Your task to perform on an android device: delete a single message in the gmail app Image 0: 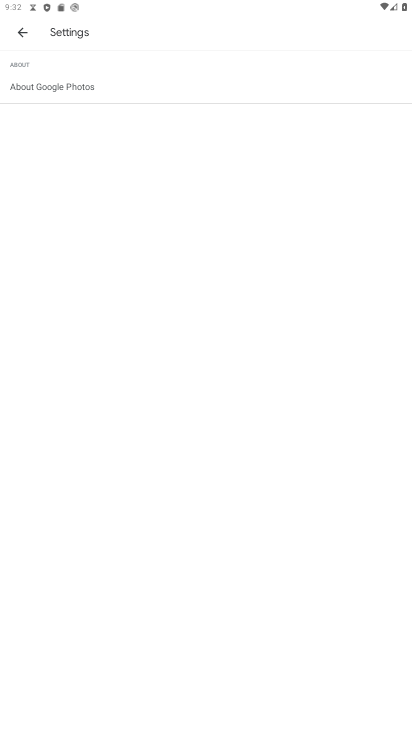
Step 0: drag from (335, 342) to (329, 121)
Your task to perform on an android device: delete a single message in the gmail app Image 1: 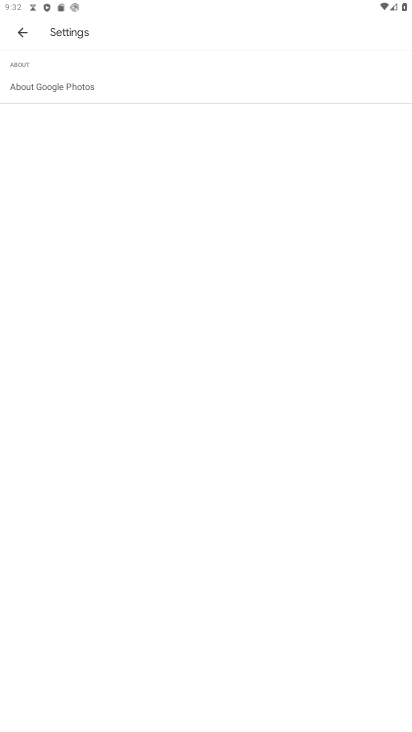
Step 1: press home button
Your task to perform on an android device: delete a single message in the gmail app Image 2: 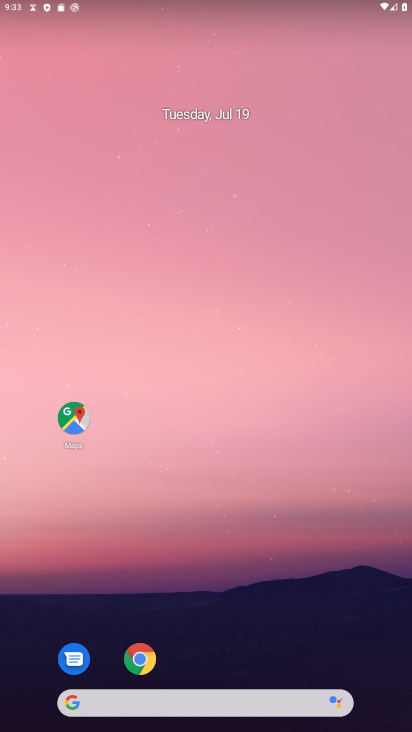
Step 2: drag from (220, 629) to (212, 179)
Your task to perform on an android device: delete a single message in the gmail app Image 3: 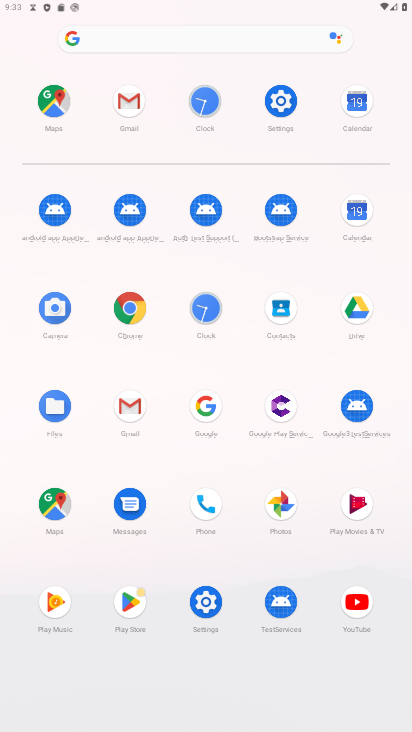
Step 3: click (128, 414)
Your task to perform on an android device: delete a single message in the gmail app Image 4: 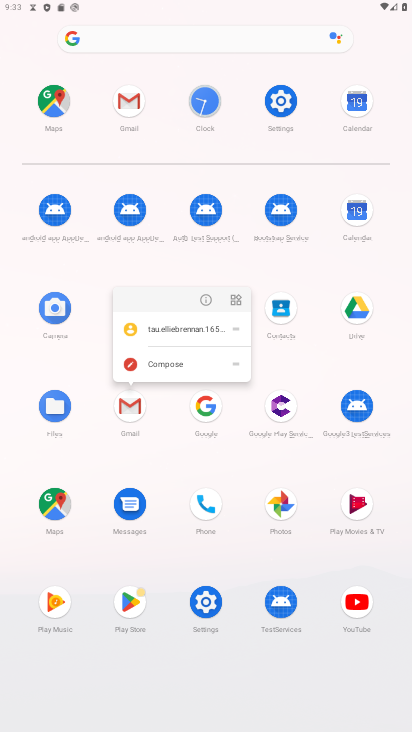
Step 4: click (197, 301)
Your task to perform on an android device: delete a single message in the gmail app Image 5: 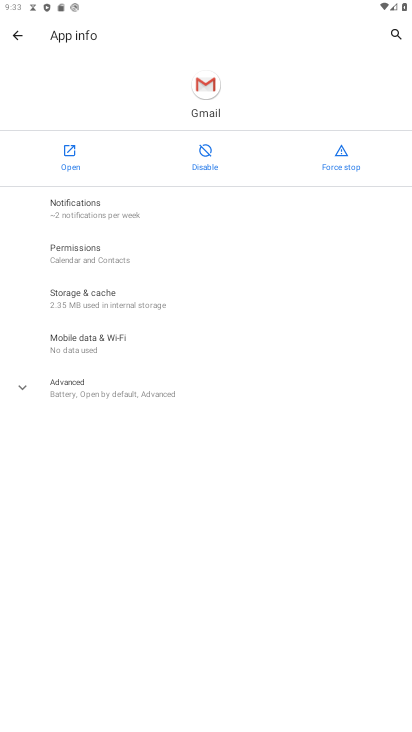
Step 5: click (91, 151)
Your task to perform on an android device: delete a single message in the gmail app Image 6: 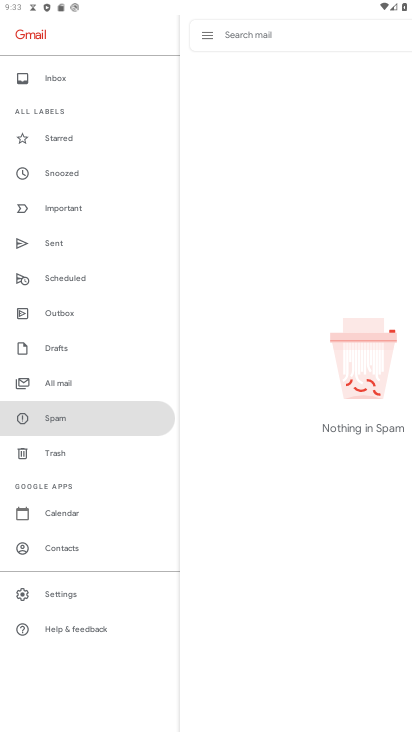
Step 6: drag from (130, 413) to (126, 193)
Your task to perform on an android device: delete a single message in the gmail app Image 7: 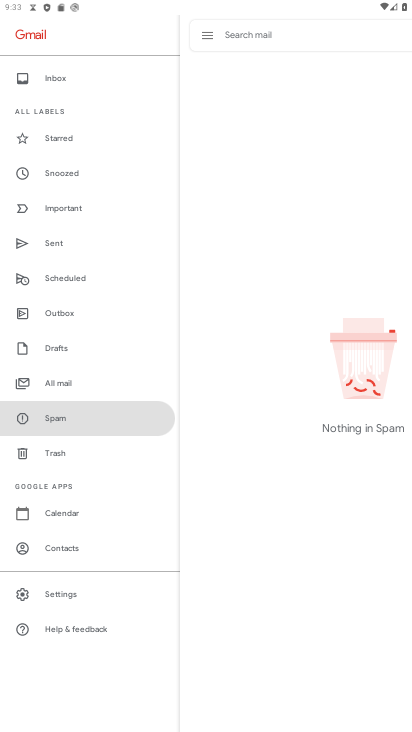
Step 7: click (51, 445)
Your task to perform on an android device: delete a single message in the gmail app Image 8: 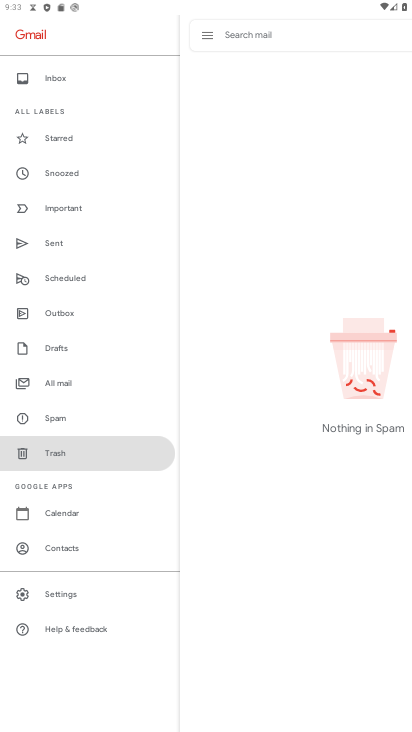
Step 8: click (53, 418)
Your task to perform on an android device: delete a single message in the gmail app Image 9: 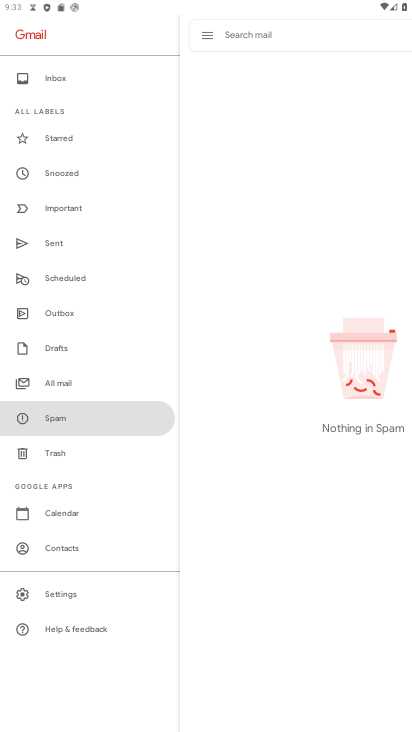
Step 9: click (104, 71)
Your task to perform on an android device: delete a single message in the gmail app Image 10: 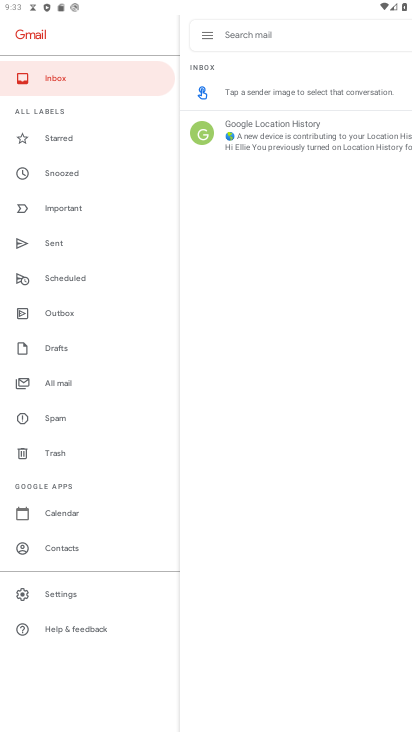
Step 10: task complete